Your task to perform on an android device: Go to Google Image 0: 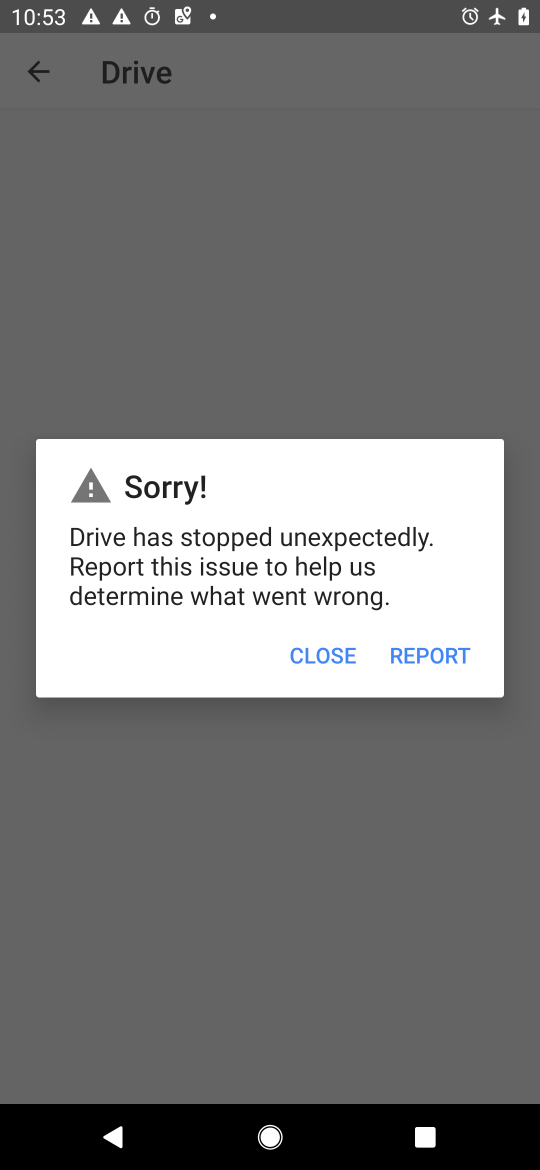
Step 0: press home button
Your task to perform on an android device: Go to Google Image 1: 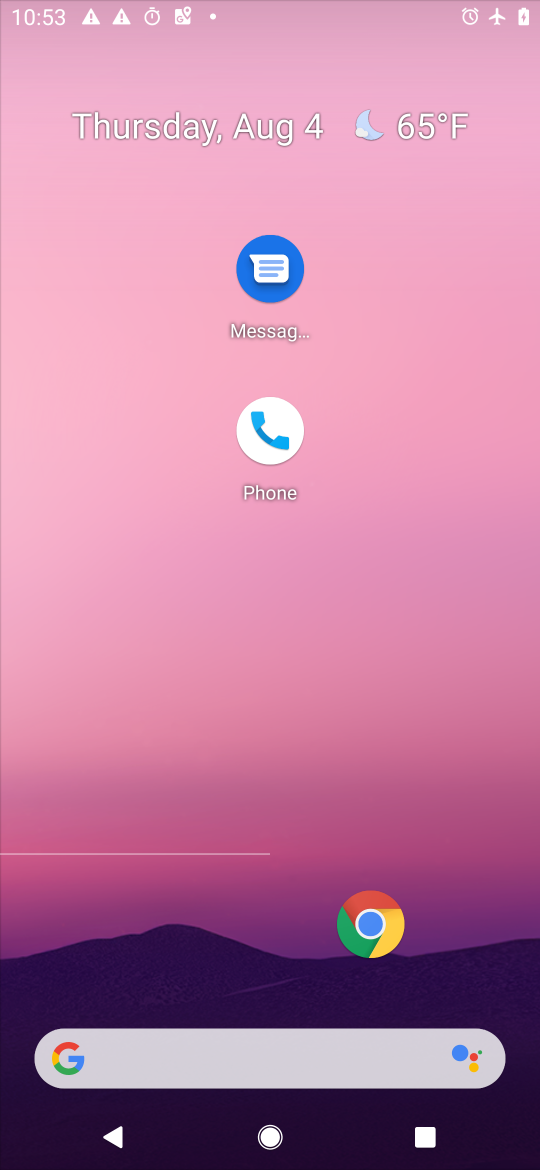
Step 1: drag from (282, 891) to (308, 234)
Your task to perform on an android device: Go to Google Image 2: 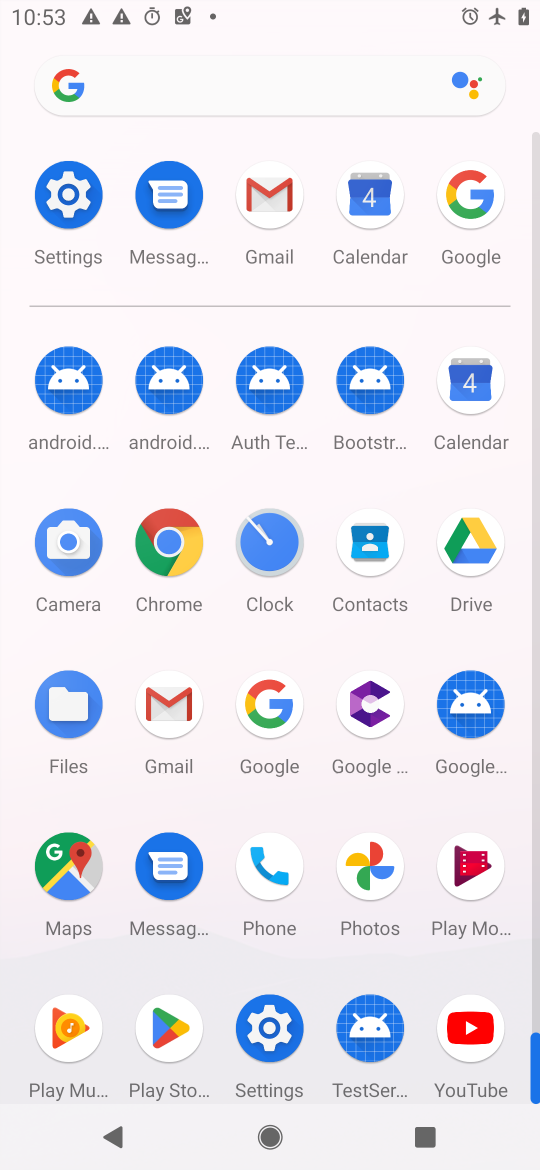
Step 2: click (255, 713)
Your task to perform on an android device: Go to Google Image 3: 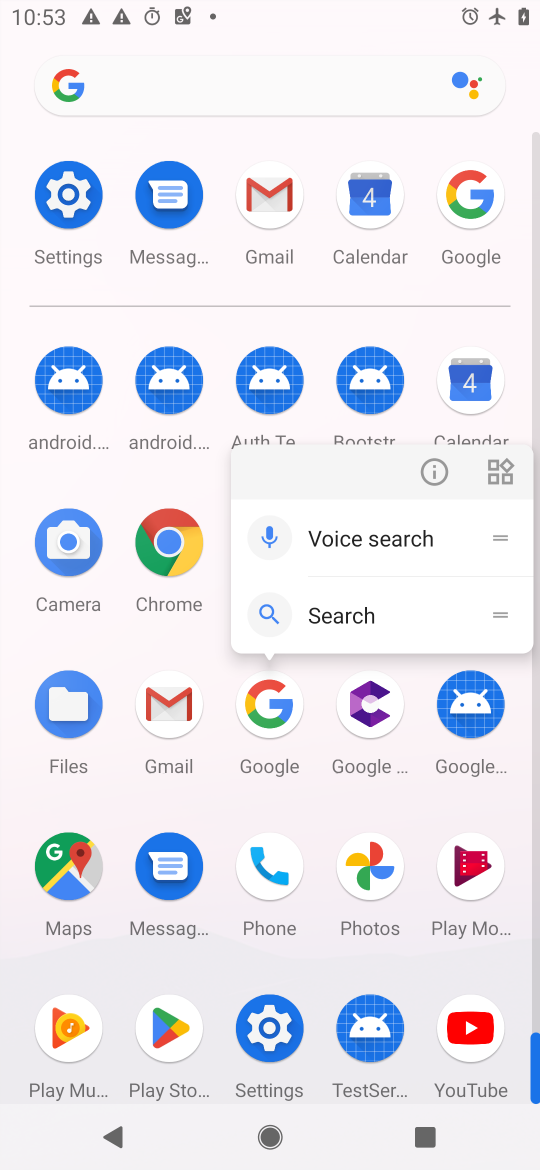
Step 3: click (426, 457)
Your task to perform on an android device: Go to Google Image 4: 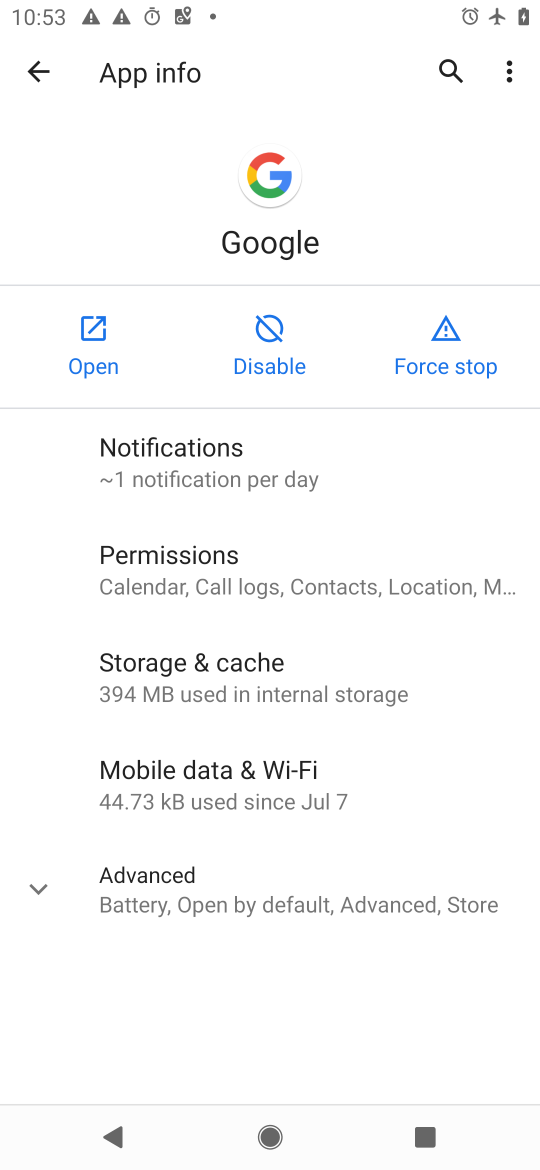
Step 4: click (72, 340)
Your task to perform on an android device: Go to Google Image 5: 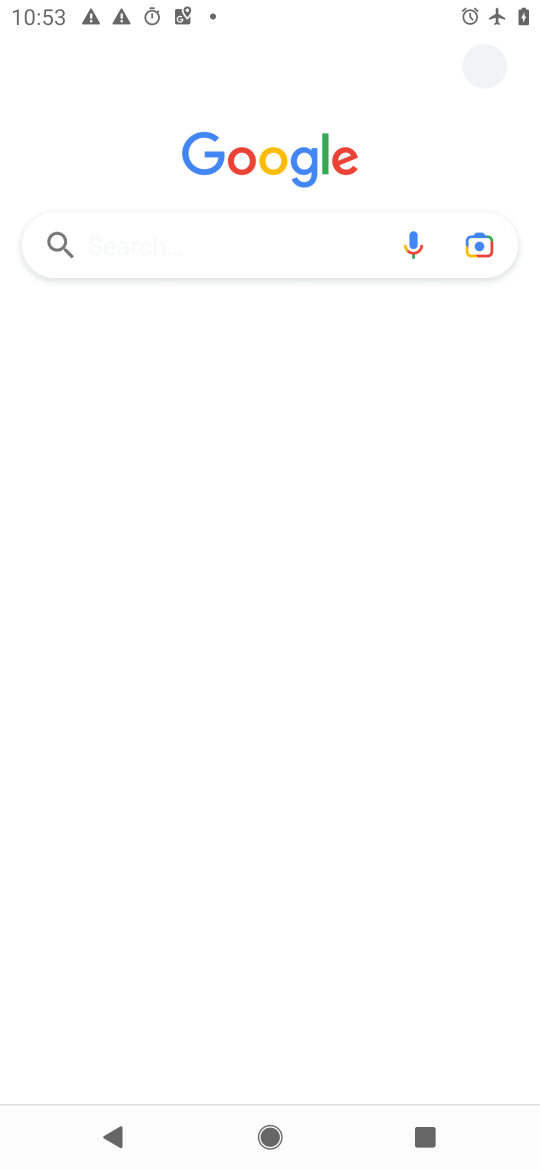
Step 5: task complete